Your task to perform on an android device: turn vacation reply on in the gmail app Image 0: 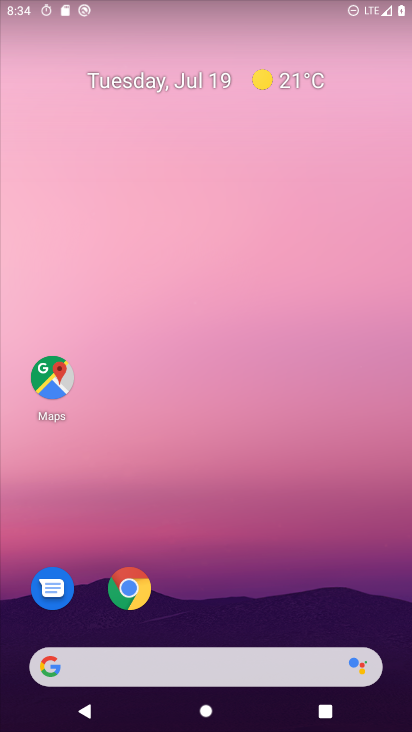
Step 0: drag from (265, 538) to (283, 91)
Your task to perform on an android device: turn vacation reply on in the gmail app Image 1: 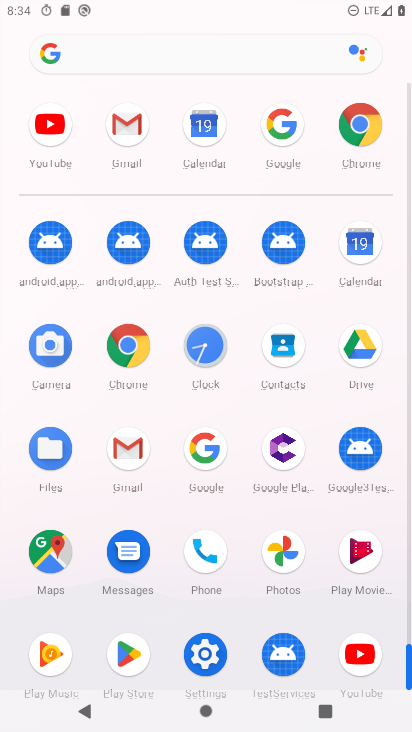
Step 1: click (132, 464)
Your task to perform on an android device: turn vacation reply on in the gmail app Image 2: 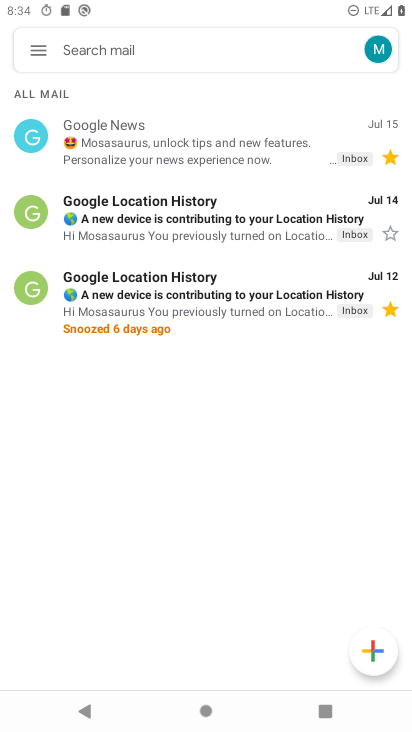
Step 2: click (46, 52)
Your task to perform on an android device: turn vacation reply on in the gmail app Image 3: 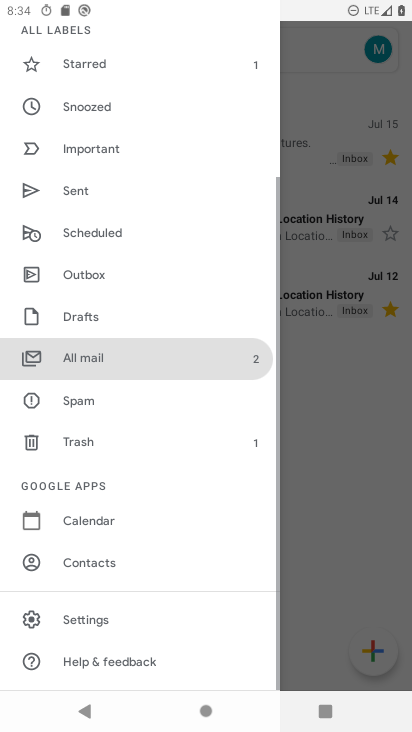
Step 3: drag from (159, 566) to (160, 189)
Your task to perform on an android device: turn vacation reply on in the gmail app Image 4: 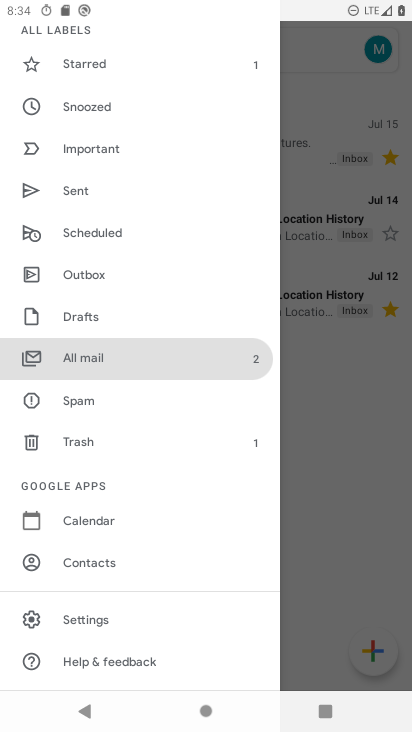
Step 4: click (123, 618)
Your task to perform on an android device: turn vacation reply on in the gmail app Image 5: 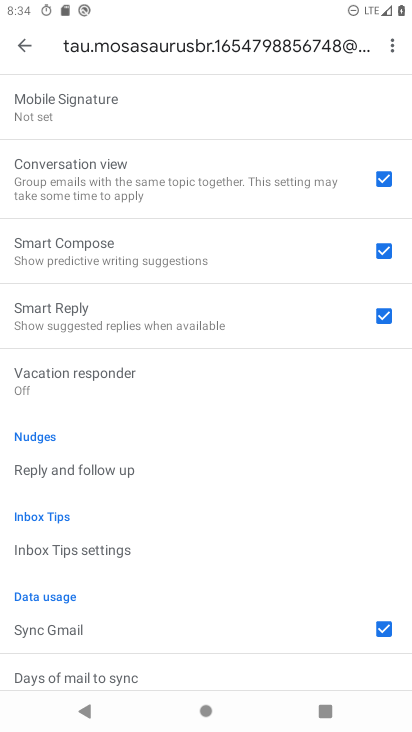
Step 5: click (177, 513)
Your task to perform on an android device: turn vacation reply on in the gmail app Image 6: 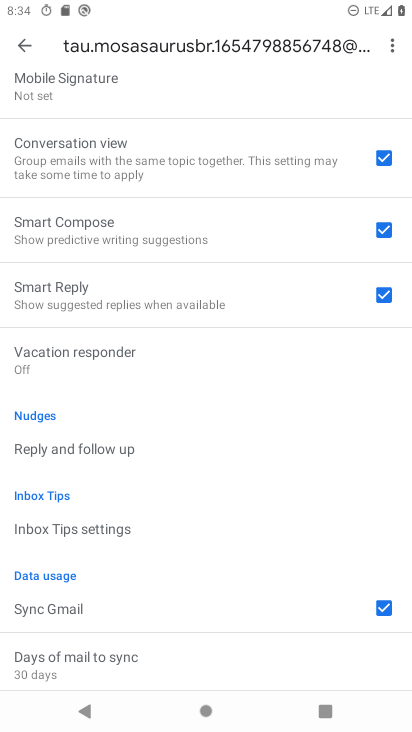
Step 6: click (144, 361)
Your task to perform on an android device: turn vacation reply on in the gmail app Image 7: 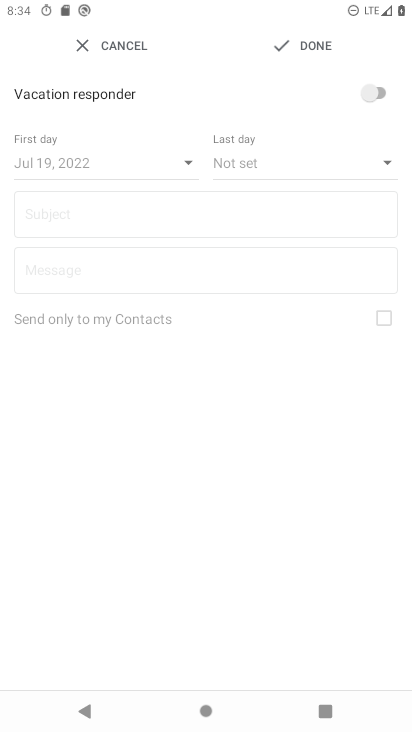
Step 7: click (360, 102)
Your task to perform on an android device: turn vacation reply on in the gmail app Image 8: 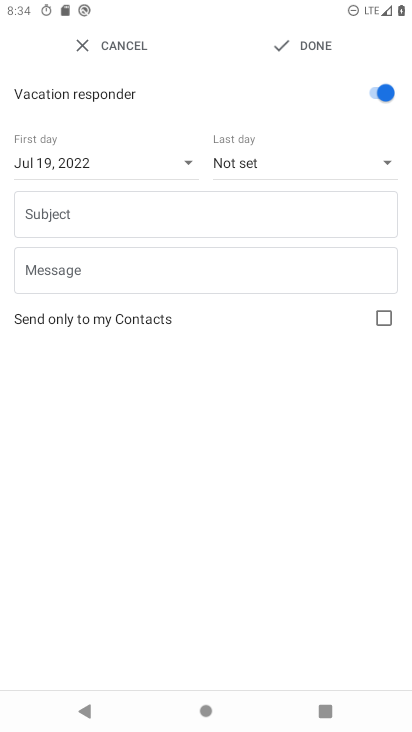
Step 8: click (323, 48)
Your task to perform on an android device: turn vacation reply on in the gmail app Image 9: 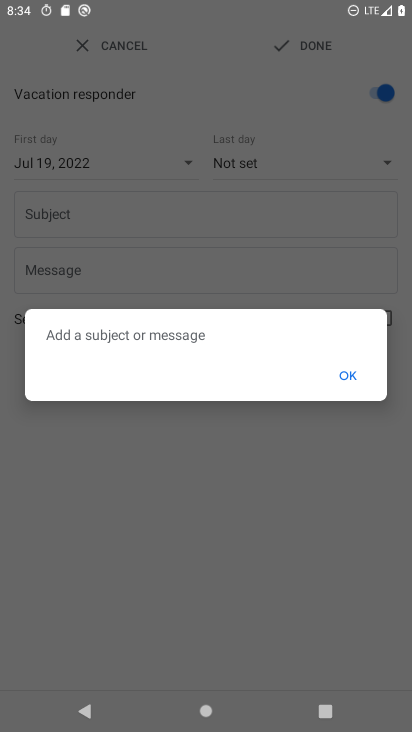
Step 9: click (333, 395)
Your task to perform on an android device: turn vacation reply on in the gmail app Image 10: 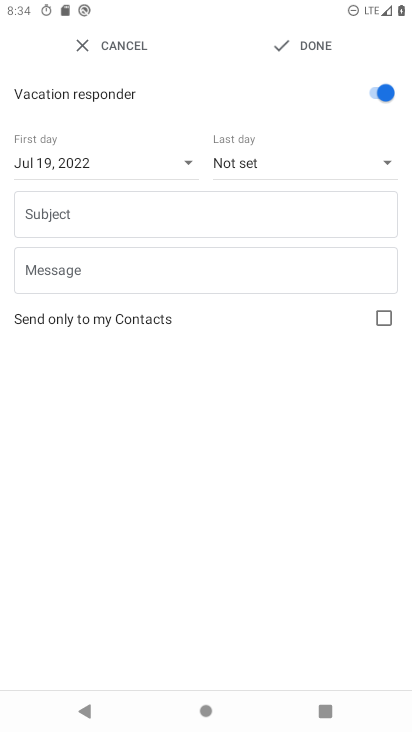
Step 10: task complete